Your task to perform on an android device: turn off airplane mode Image 0: 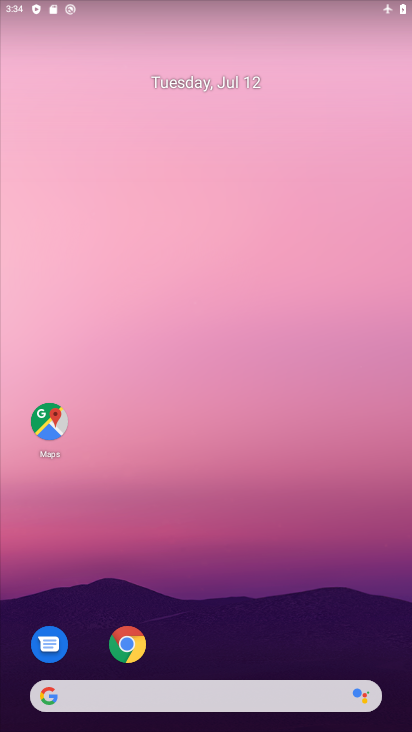
Step 0: drag from (280, 633) to (259, 123)
Your task to perform on an android device: turn off airplane mode Image 1: 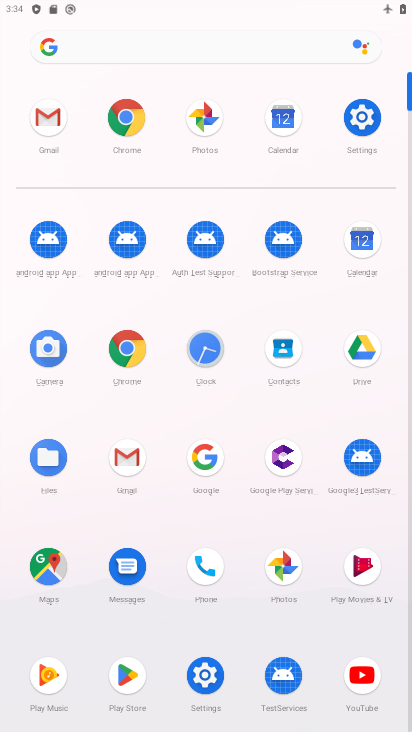
Step 1: click (360, 122)
Your task to perform on an android device: turn off airplane mode Image 2: 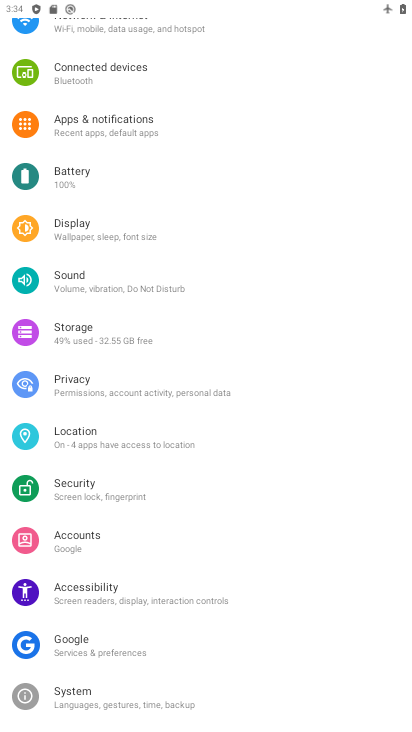
Step 2: drag from (177, 132) to (216, 577)
Your task to perform on an android device: turn off airplane mode Image 3: 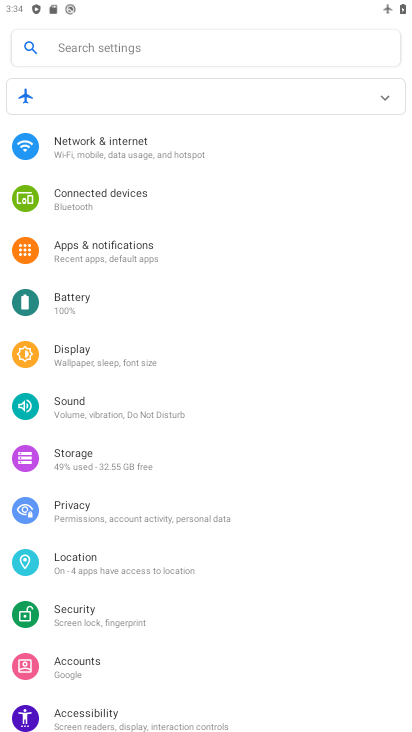
Step 3: click (143, 154)
Your task to perform on an android device: turn off airplane mode Image 4: 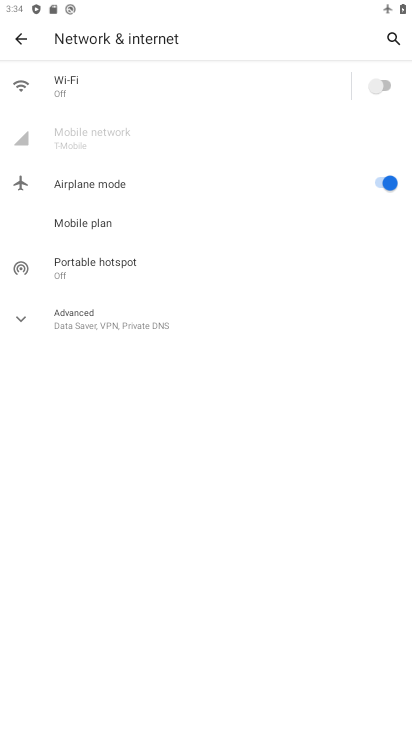
Step 4: click (389, 185)
Your task to perform on an android device: turn off airplane mode Image 5: 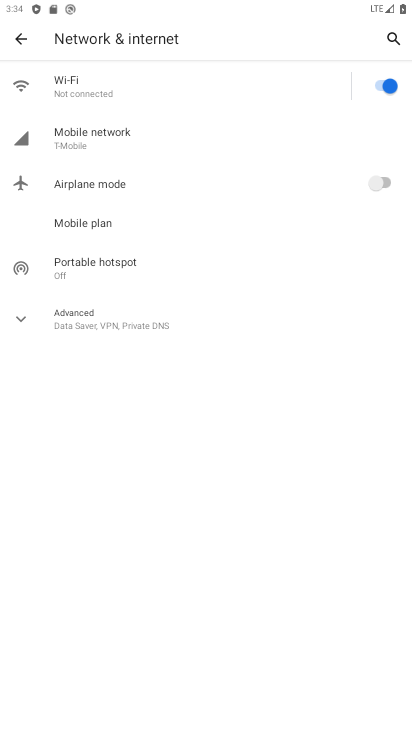
Step 5: task complete